Your task to perform on an android device: Open wifi settings Image 0: 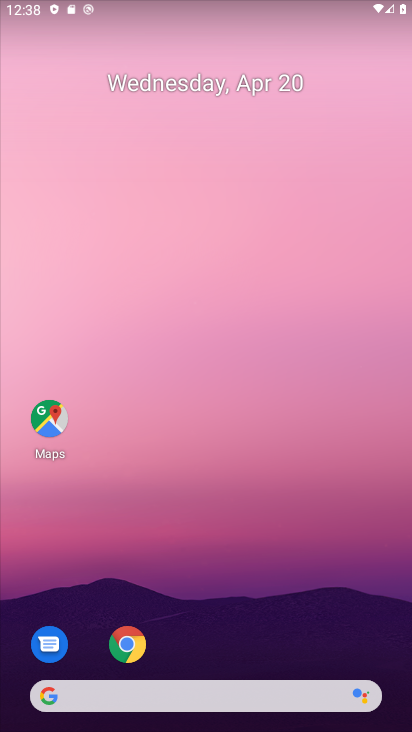
Step 0: drag from (251, 645) to (265, 4)
Your task to perform on an android device: Open wifi settings Image 1: 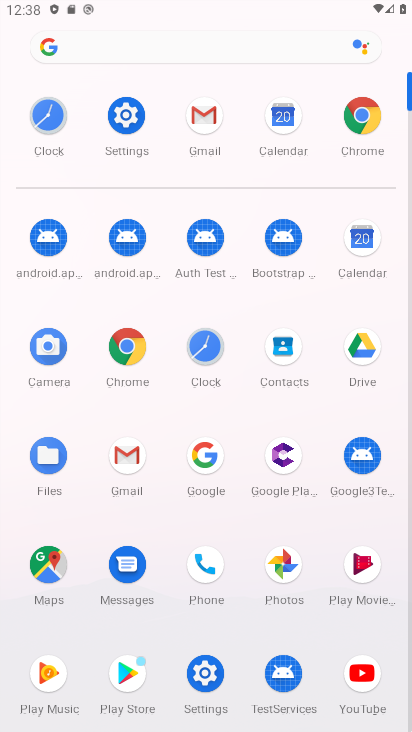
Step 1: click (132, 105)
Your task to perform on an android device: Open wifi settings Image 2: 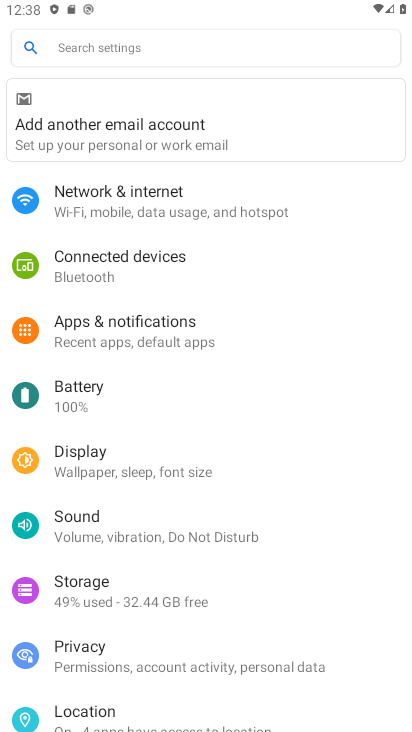
Step 2: click (140, 208)
Your task to perform on an android device: Open wifi settings Image 3: 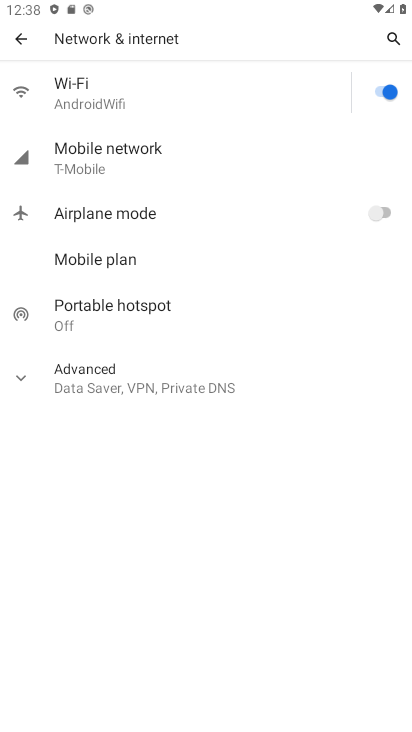
Step 3: click (190, 97)
Your task to perform on an android device: Open wifi settings Image 4: 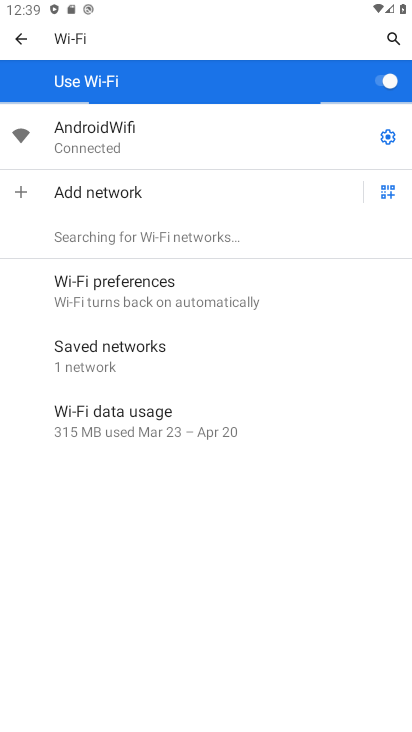
Step 4: task complete